Your task to perform on an android device: turn vacation reply on in the gmail app Image 0: 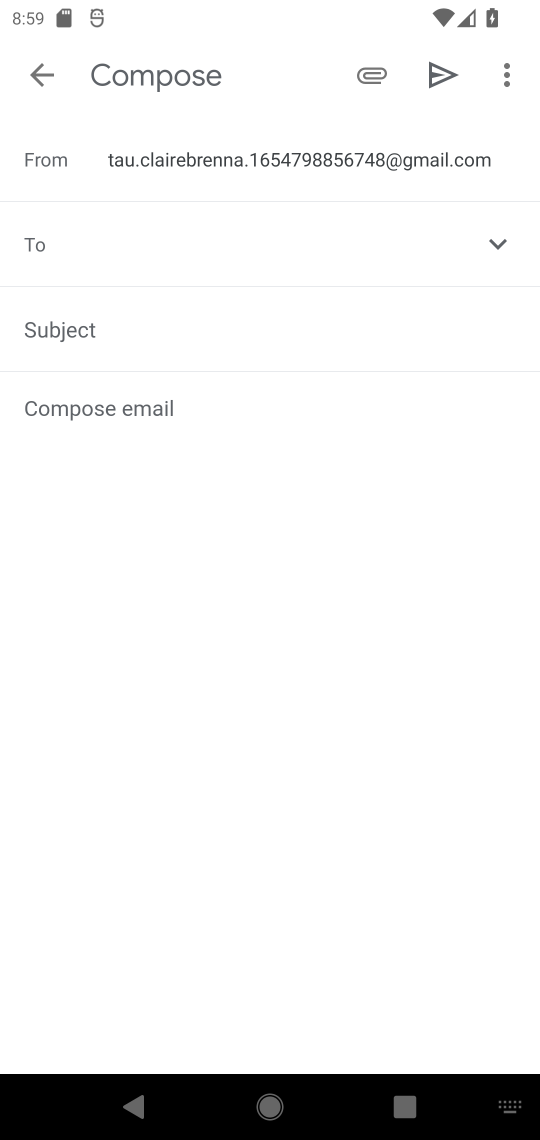
Step 0: press home button
Your task to perform on an android device: turn vacation reply on in the gmail app Image 1: 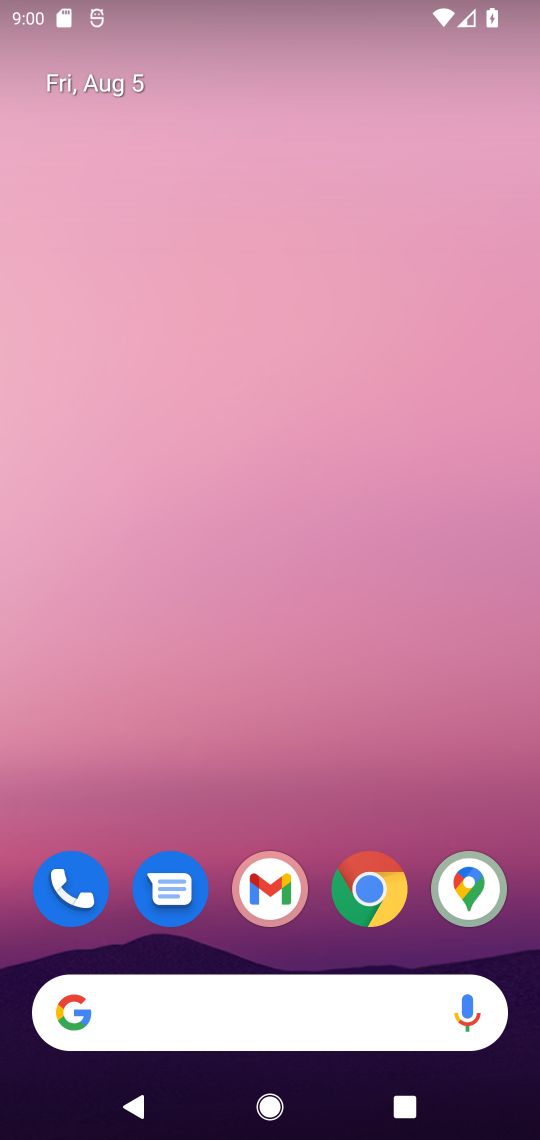
Step 1: drag from (252, 616) to (243, 198)
Your task to perform on an android device: turn vacation reply on in the gmail app Image 2: 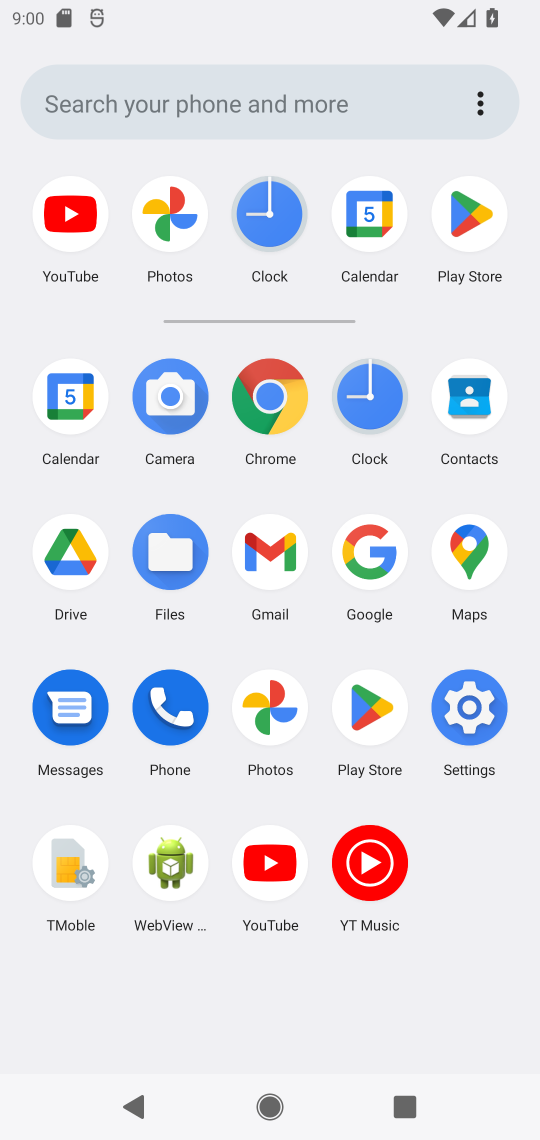
Step 2: click (277, 551)
Your task to perform on an android device: turn vacation reply on in the gmail app Image 3: 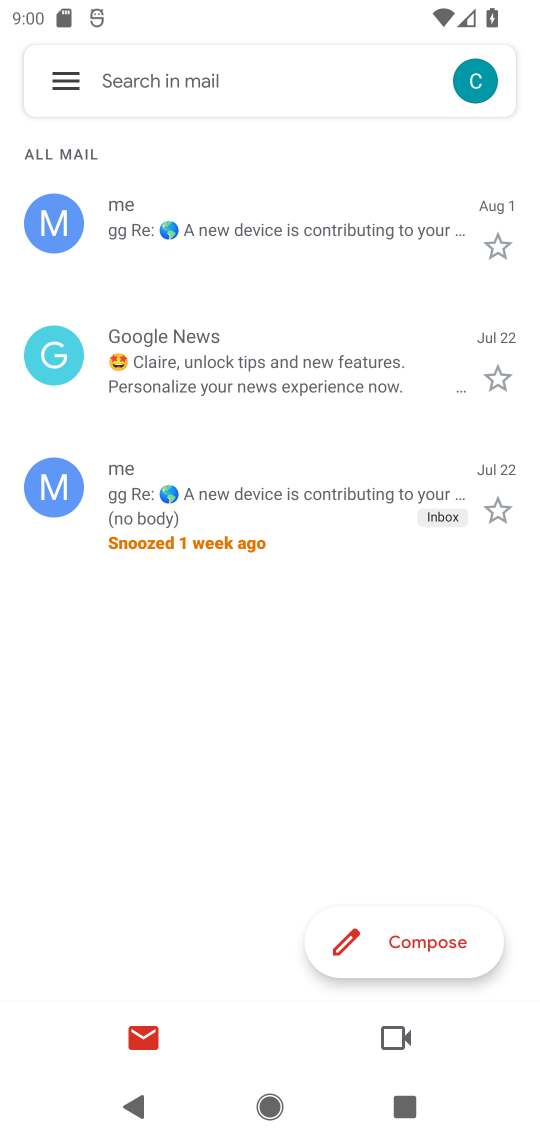
Step 3: click (58, 86)
Your task to perform on an android device: turn vacation reply on in the gmail app Image 4: 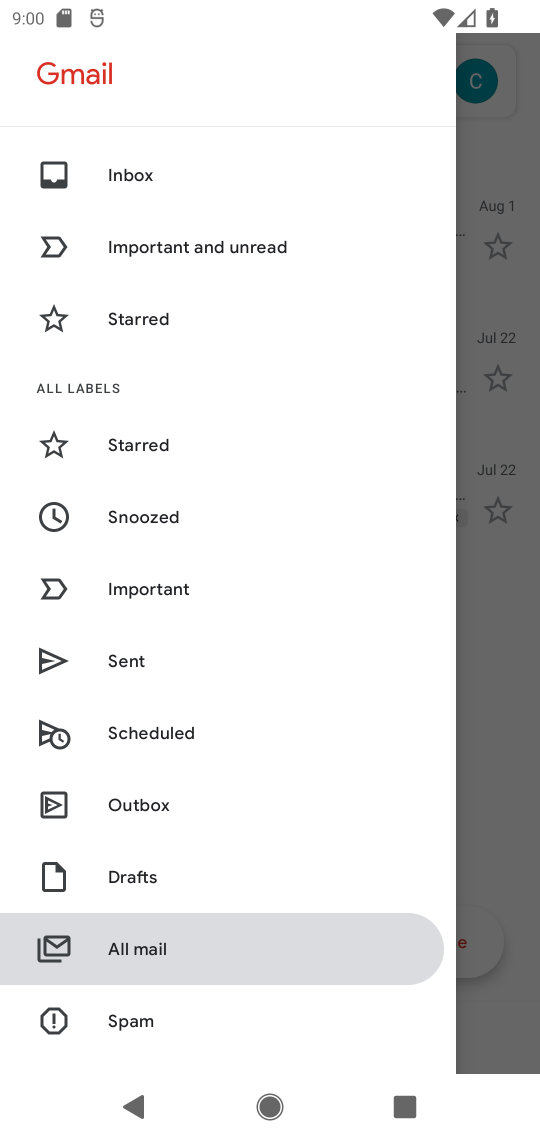
Step 4: drag from (176, 1040) to (214, 328)
Your task to perform on an android device: turn vacation reply on in the gmail app Image 5: 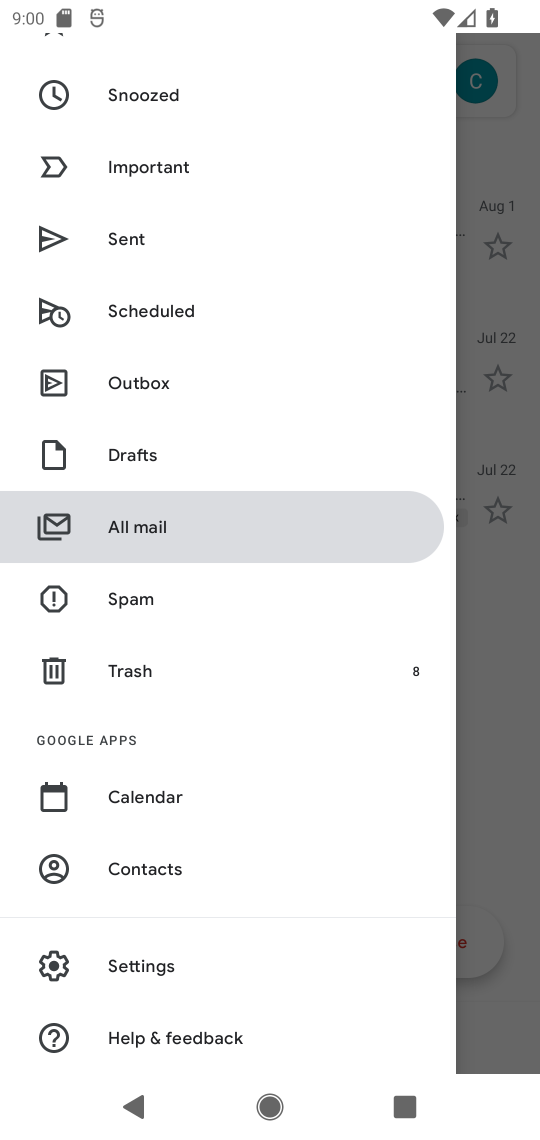
Step 5: click (125, 964)
Your task to perform on an android device: turn vacation reply on in the gmail app Image 6: 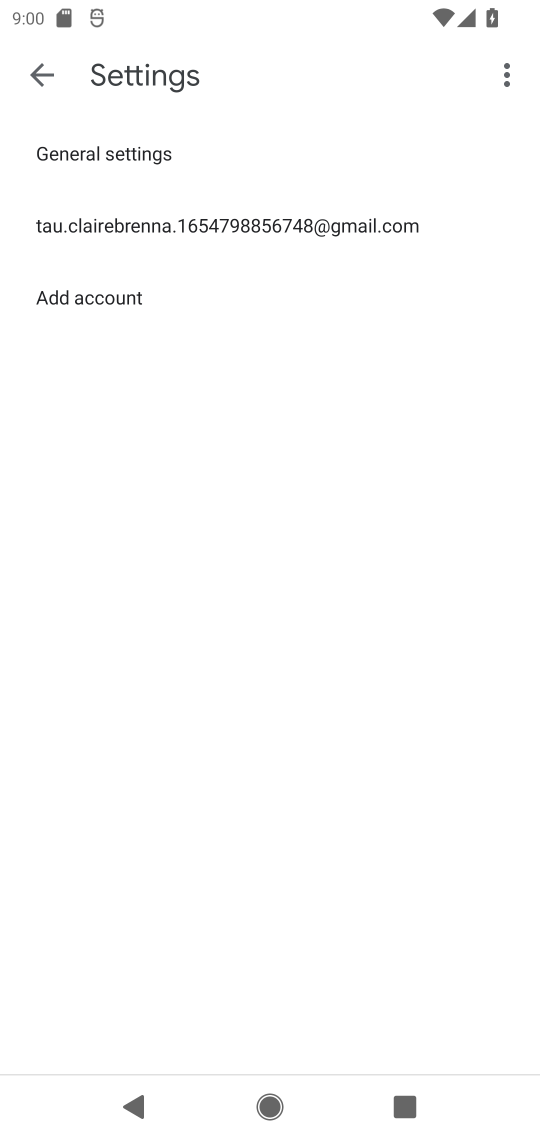
Step 6: click (124, 224)
Your task to perform on an android device: turn vacation reply on in the gmail app Image 7: 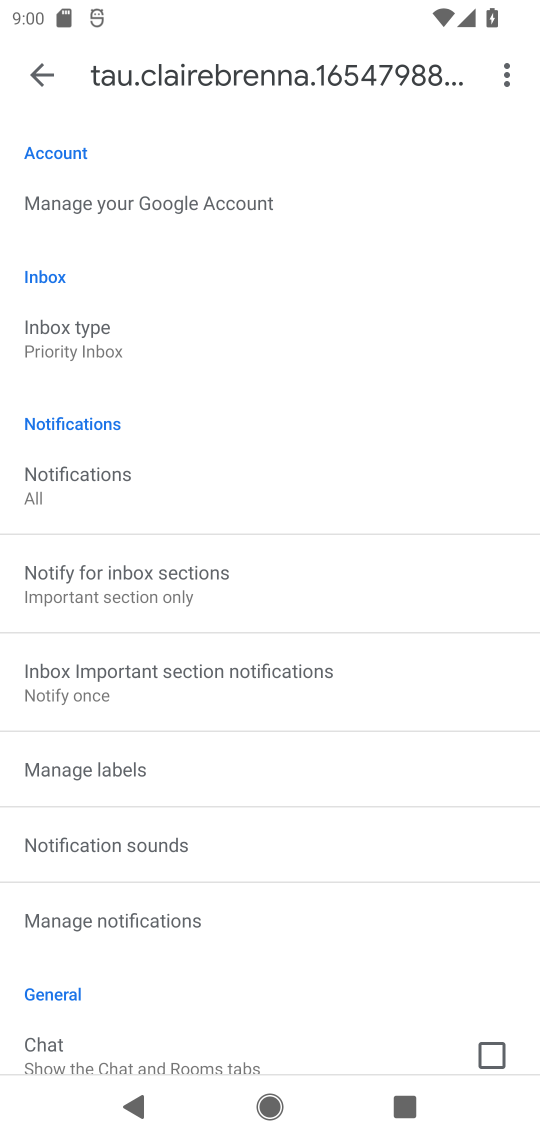
Step 7: drag from (161, 951) to (324, 310)
Your task to perform on an android device: turn vacation reply on in the gmail app Image 8: 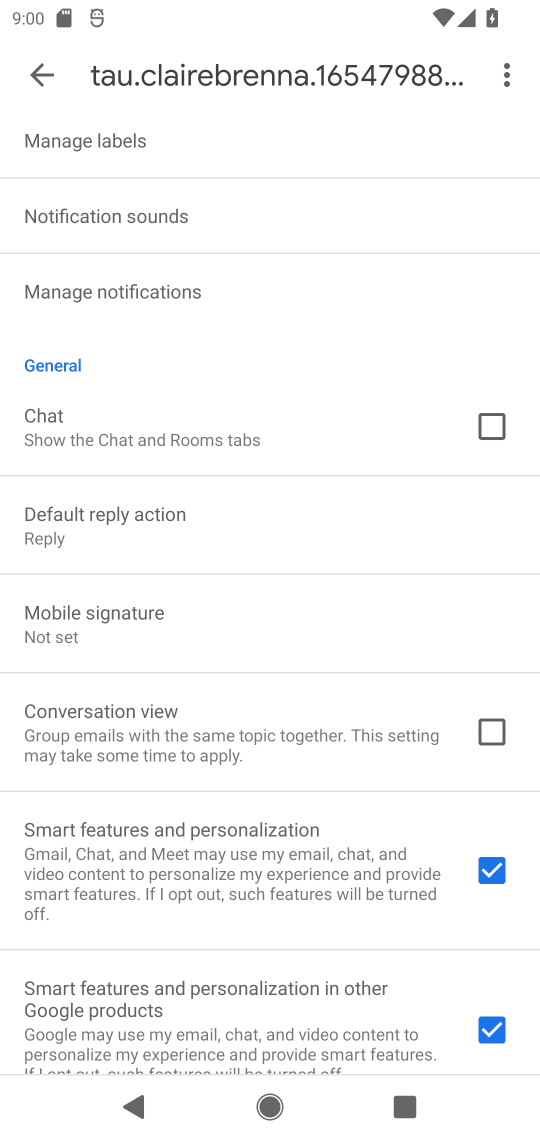
Step 8: drag from (136, 921) to (224, 495)
Your task to perform on an android device: turn vacation reply on in the gmail app Image 9: 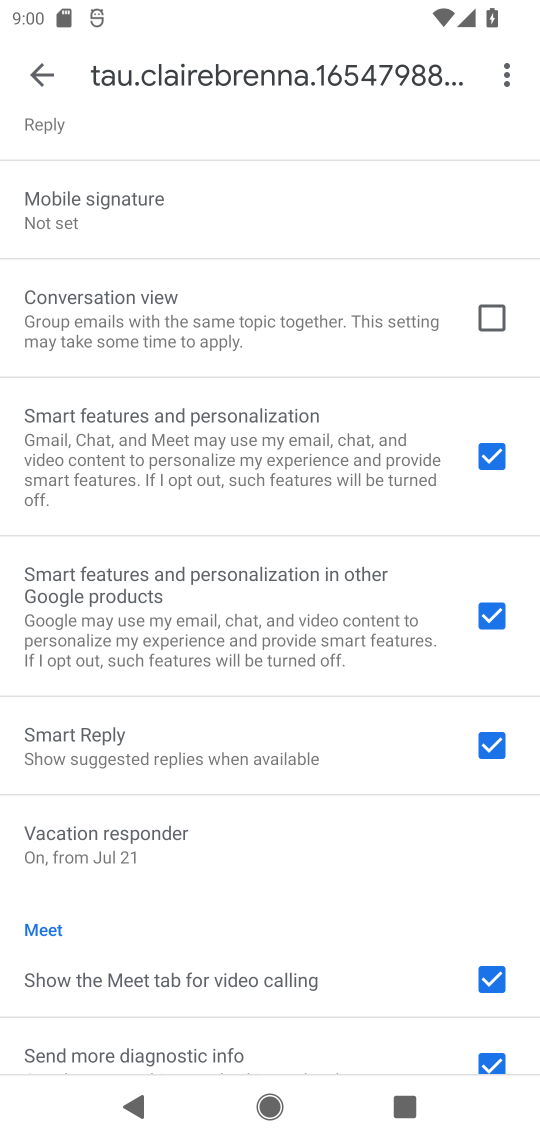
Step 9: click (134, 843)
Your task to perform on an android device: turn vacation reply on in the gmail app Image 10: 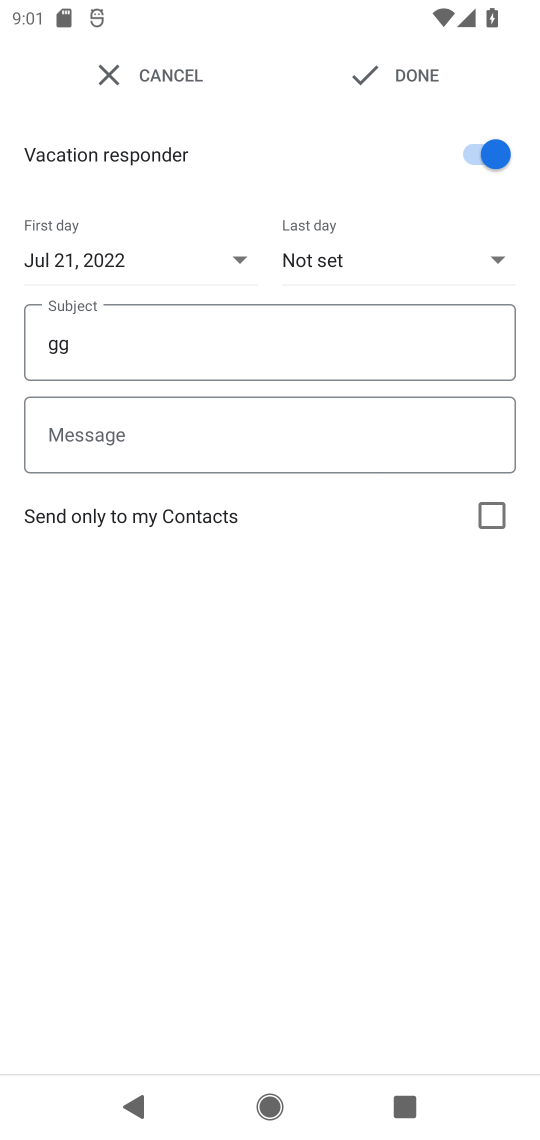
Step 10: task complete